Your task to perform on an android device: check the backup settings in the google photos Image 0: 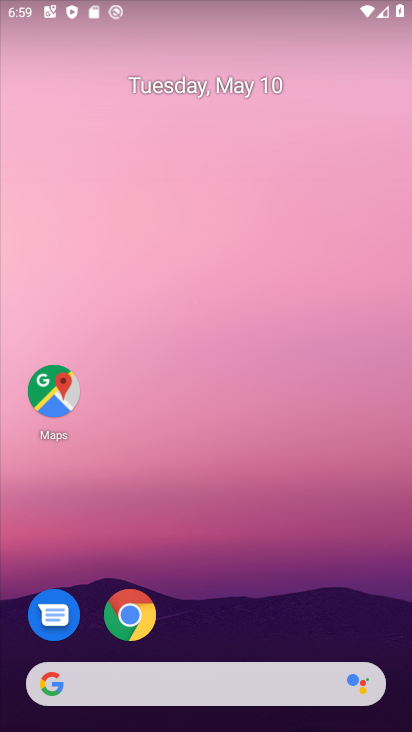
Step 0: drag from (248, 542) to (146, 118)
Your task to perform on an android device: check the backup settings in the google photos Image 1: 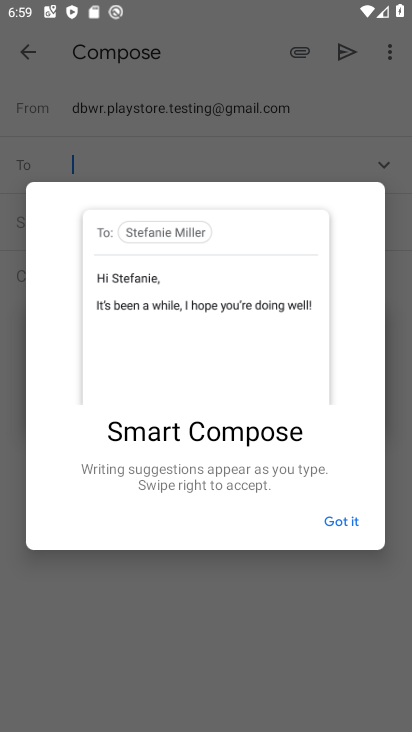
Step 1: click (269, 556)
Your task to perform on an android device: check the backup settings in the google photos Image 2: 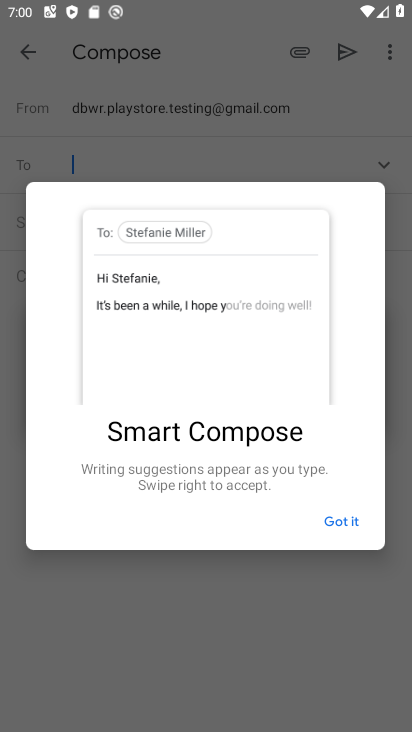
Step 2: press home button
Your task to perform on an android device: check the backup settings in the google photos Image 3: 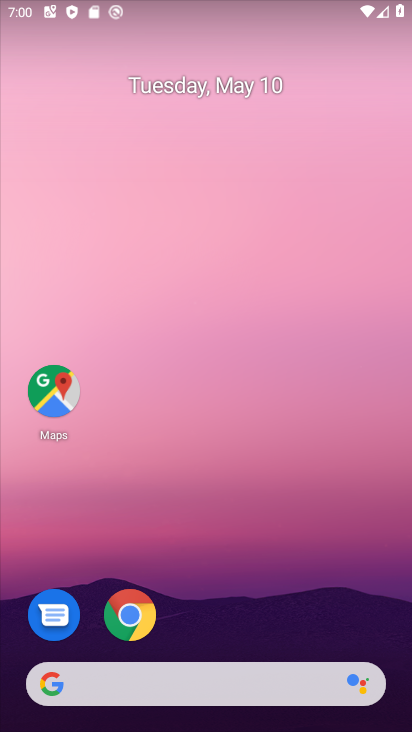
Step 3: drag from (228, 554) to (159, 232)
Your task to perform on an android device: check the backup settings in the google photos Image 4: 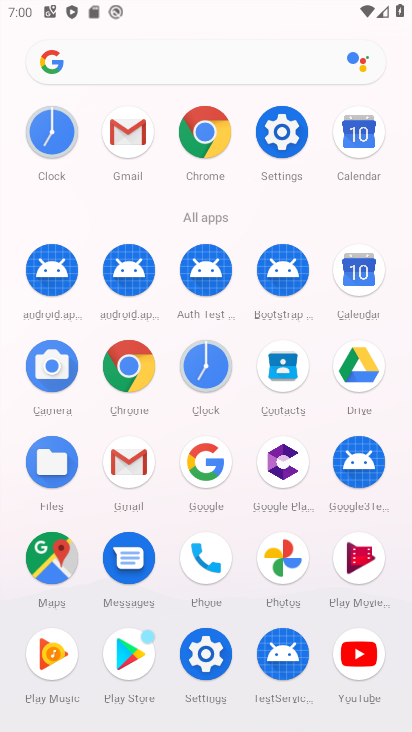
Step 4: click (280, 558)
Your task to perform on an android device: check the backup settings in the google photos Image 5: 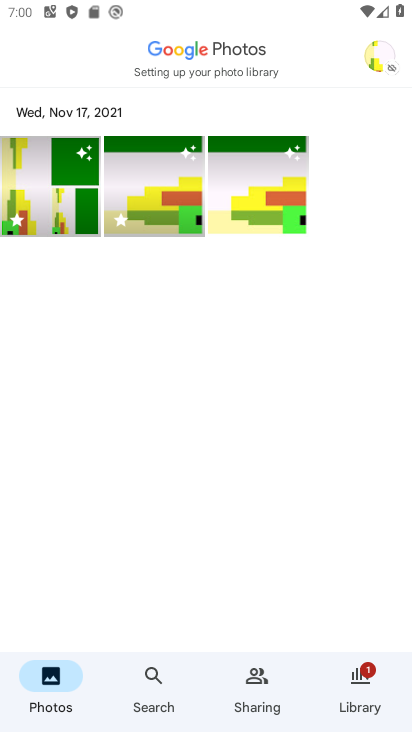
Step 5: click (386, 52)
Your task to perform on an android device: check the backup settings in the google photos Image 6: 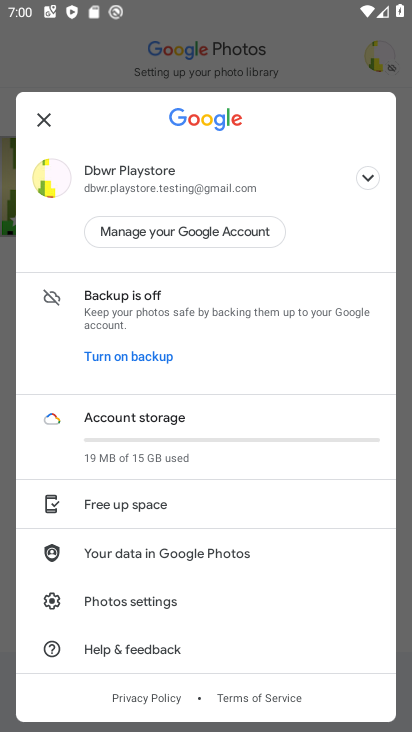
Step 6: click (116, 307)
Your task to perform on an android device: check the backup settings in the google photos Image 7: 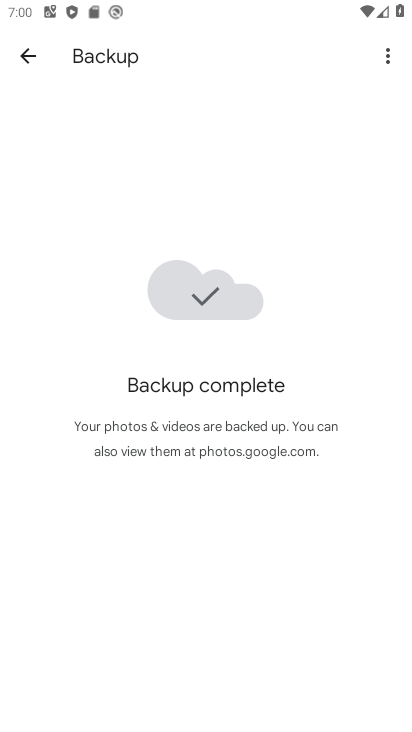
Step 7: click (26, 56)
Your task to perform on an android device: check the backup settings in the google photos Image 8: 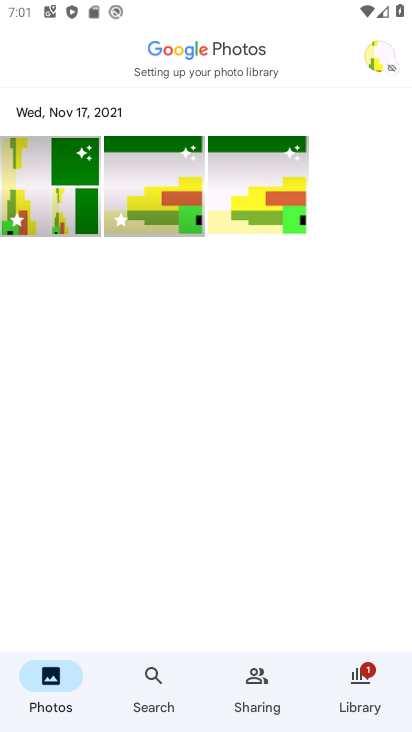
Step 8: task complete